Your task to perform on an android device: read, delete, or share a saved page in the chrome app Image 0: 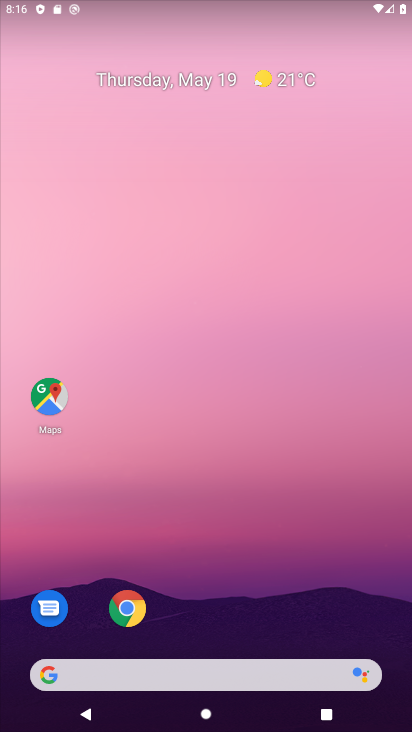
Step 0: click (197, 133)
Your task to perform on an android device: read, delete, or share a saved page in the chrome app Image 1: 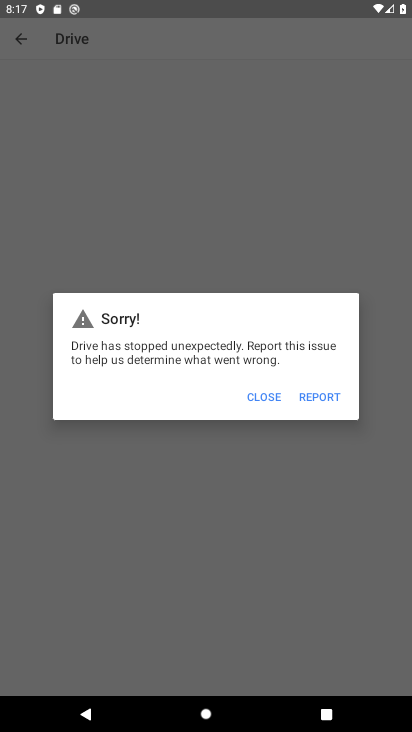
Step 1: press home button
Your task to perform on an android device: read, delete, or share a saved page in the chrome app Image 2: 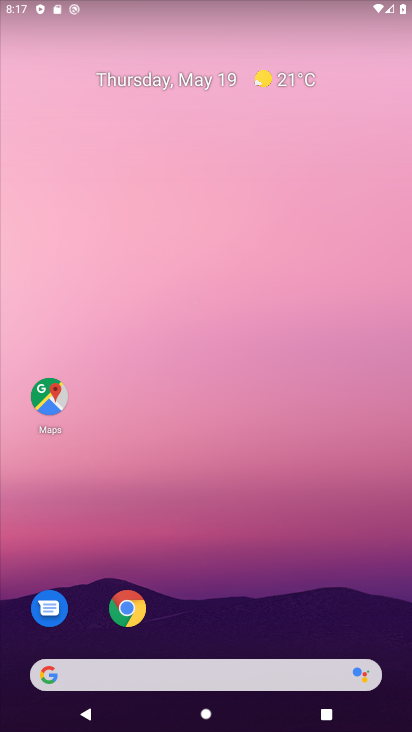
Step 2: click (128, 606)
Your task to perform on an android device: read, delete, or share a saved page in the chrome app Image 3: 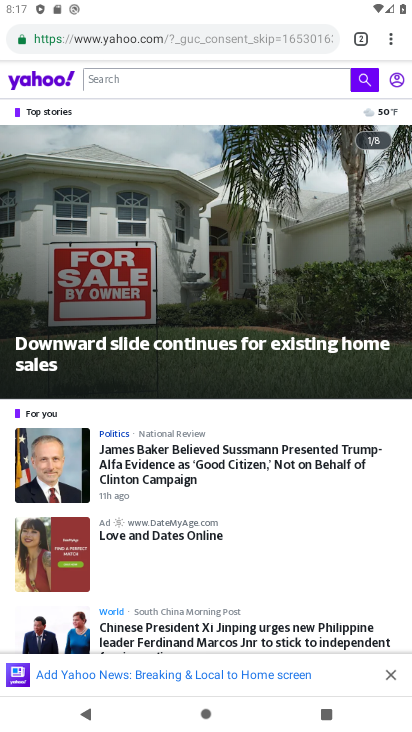
Step 3: click (391, 36)
Your task to perform on an android device: read, delete, or share a saved page in the chrome app Image 4: 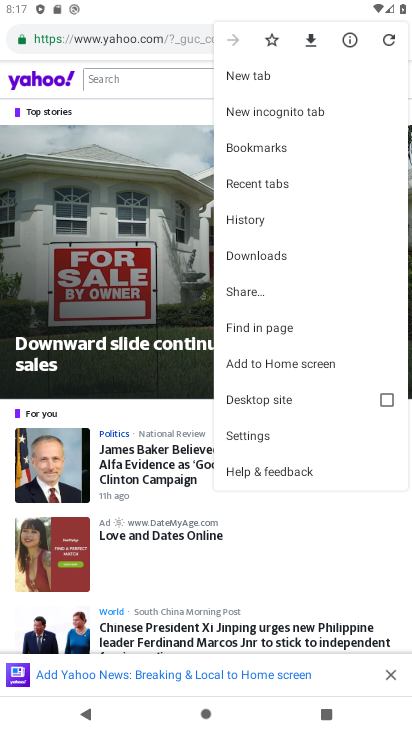
Step 4: click (264, 250)
Your task to perform on an android device: read, delete, or share a saved page in the chrome app Image 5: 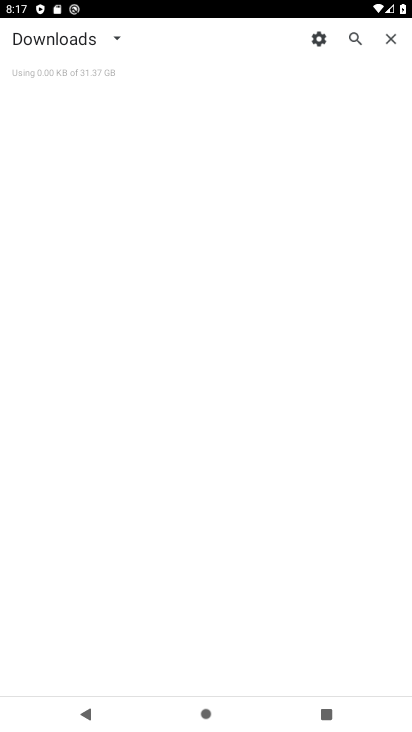
Step 5: task complete